Your task to perform on an android device: Go to Reddit.com Image 0: 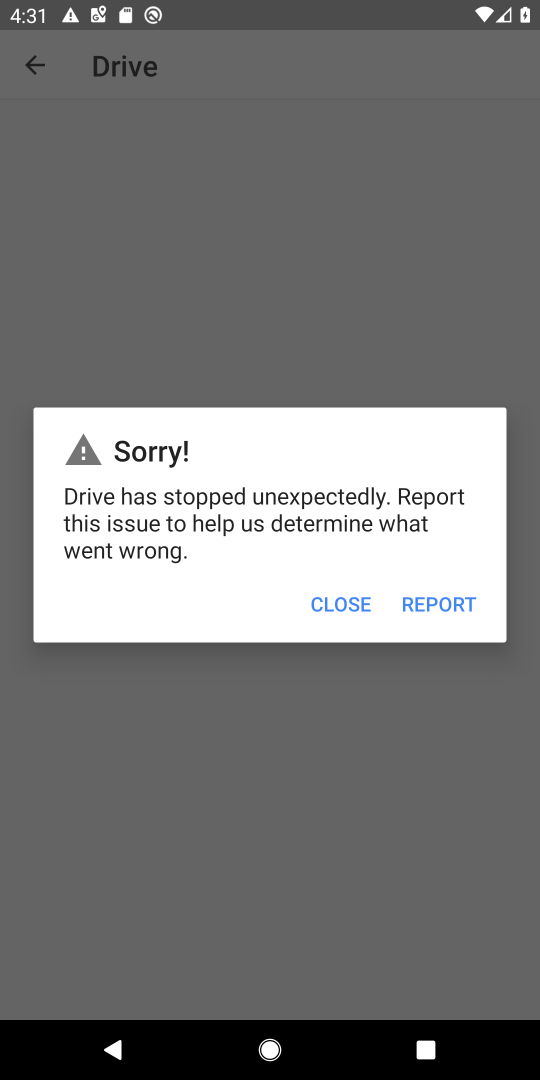
Step 0: press back button
Your task to perform on an android device: Go to Reddit.com Image 1: 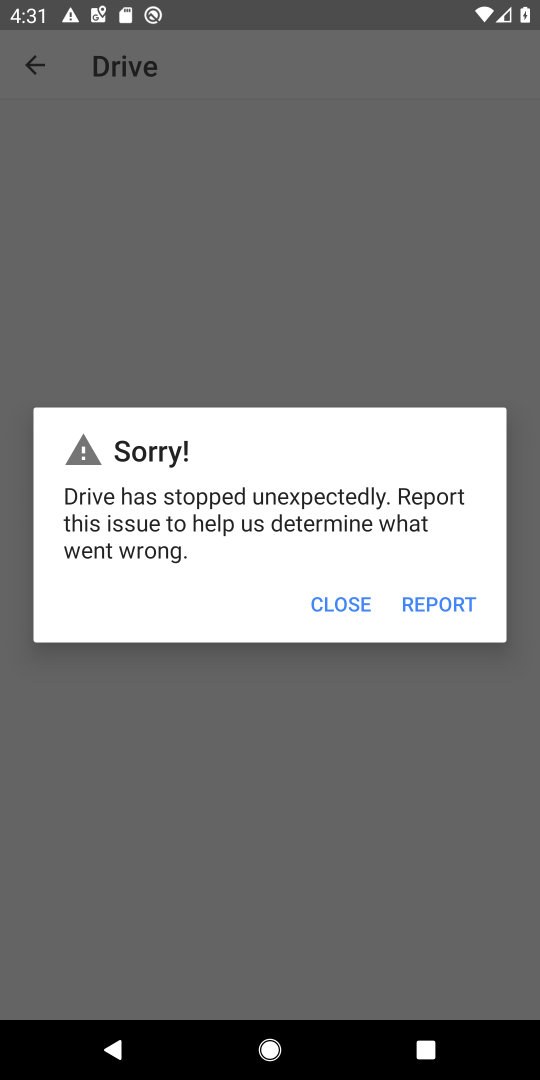
Step 1: press home button
Your task to perform on an android device: Go to Reddit.com Image 2: 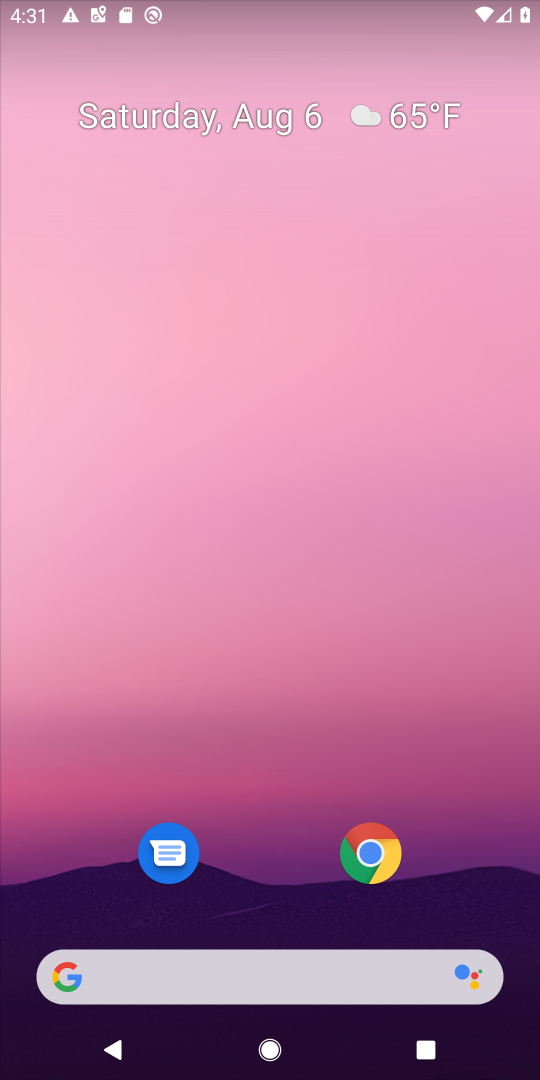
Step 2: click (369, 847)
Your task to perform on an android device: Go to Reddit.com Image 3: 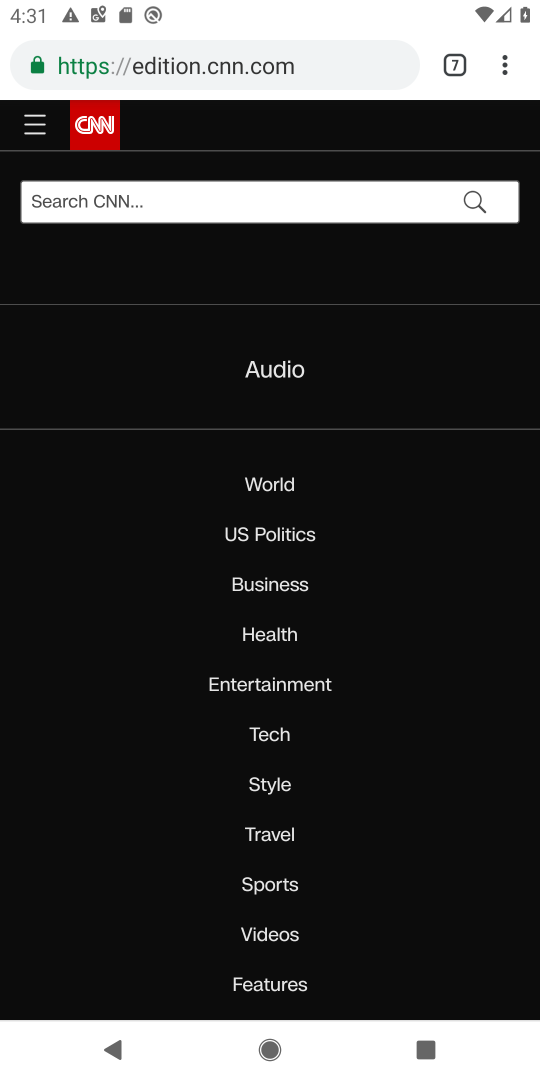
Step 3: click (455, 60)
Your task to perform on an android device: Go to Reddit.com Image 4: 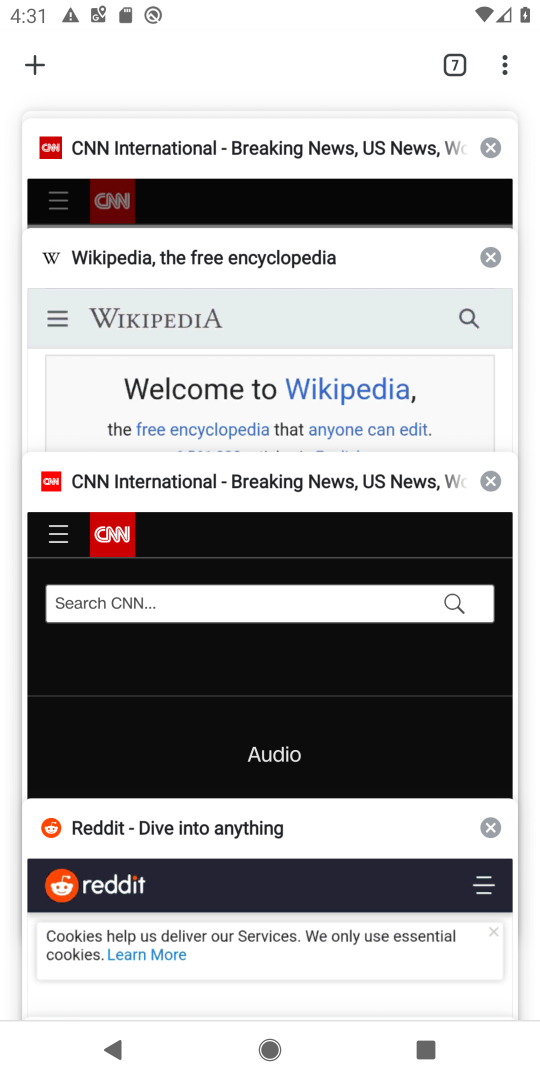
Step 4: drag from (203, 317) to (290, 150)
Your task to perform on an android device: Go to Reddit.com Image 5: 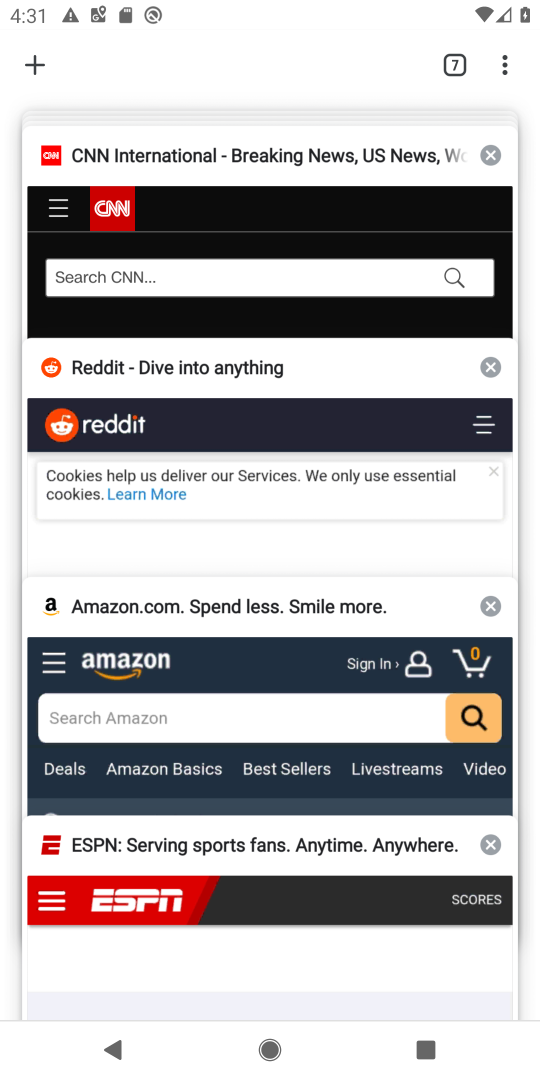
Step 5: click (116, 381)
Your task to perform on an android device: Go to Reddit.com Image 6: 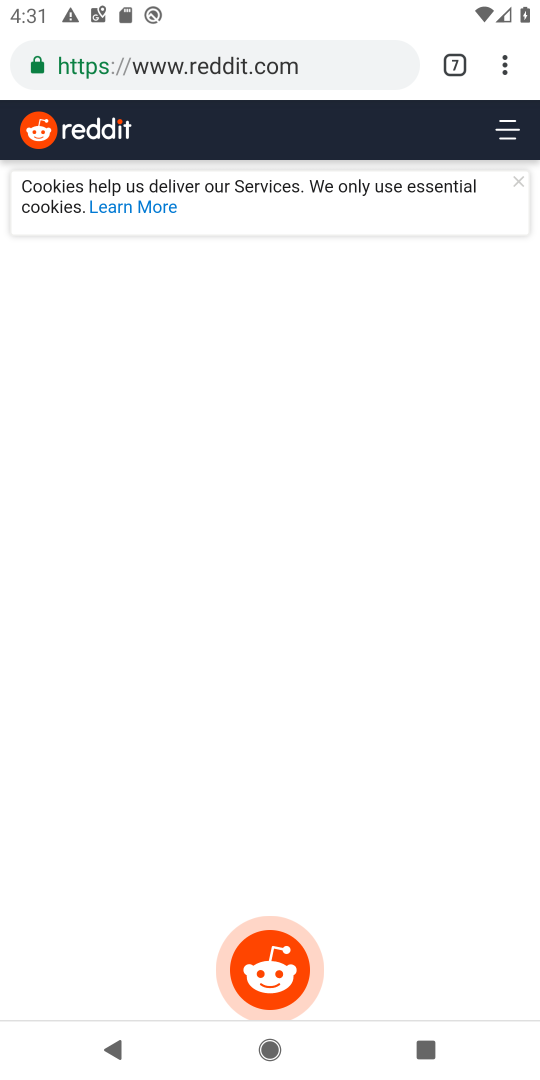
Step 6: task complete